Your task to perform on an android device: change your default location settings in chrome Image 0: 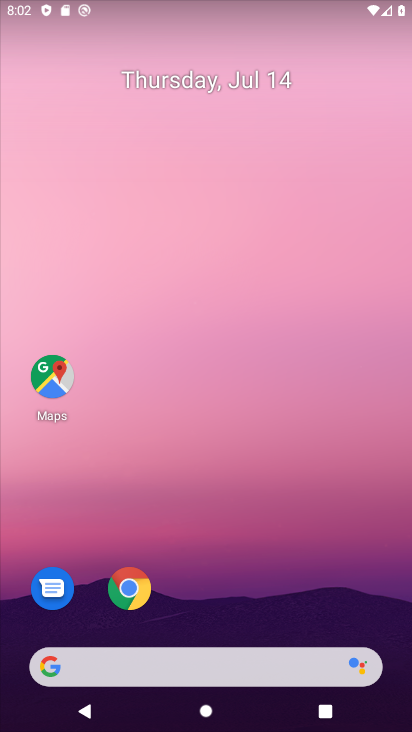
Step 0: click (130, 597)
Your task to perform on an android device: change your default location settings in chrome Image 1: 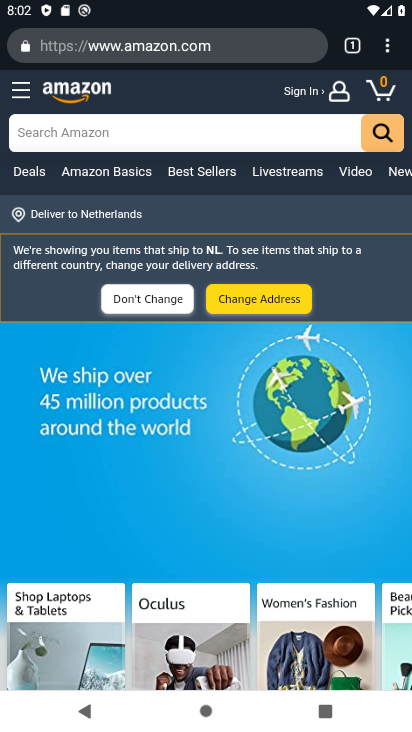
Step 1: click (390, 45)
Your task to perform on an android device: change your default location settings in chrome Image 2: 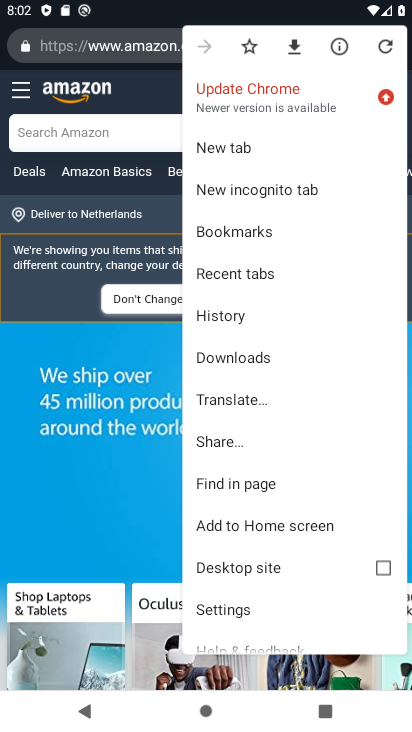
Step 2: click (229, 614)
Your task to perform on an android device: change your default location settings in chrome Image 3: 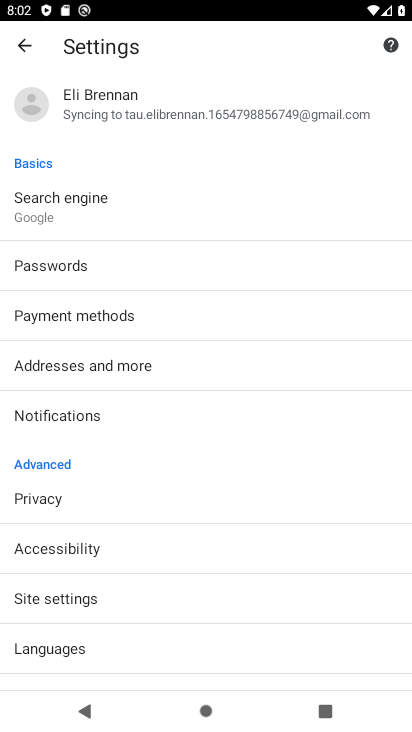
Step 3: click (71, 206)
Your task to perform on an android device: change your default location settings in chrome Image 4: 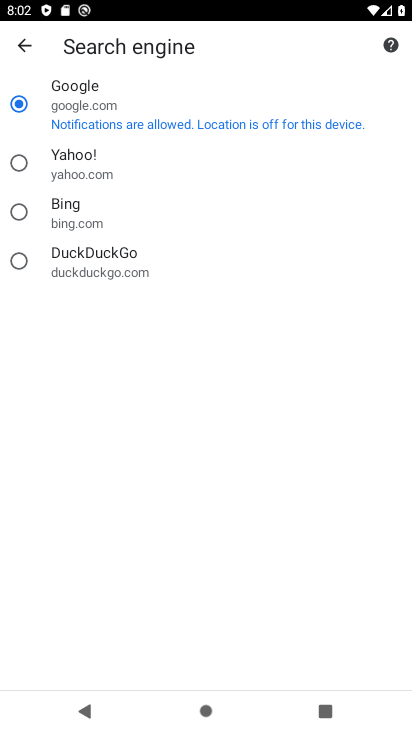
Step 4: click (19, 38)
Your task to perform on an android device: change your default location settings in chrome Image 5: 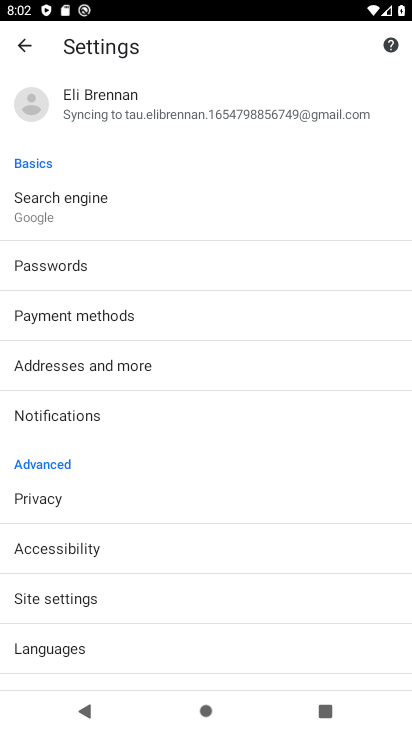
Step 5: drag from (105, 583) to (113, 390)
Your task to perform on an android device: change your default location settings in chrome Image 6: 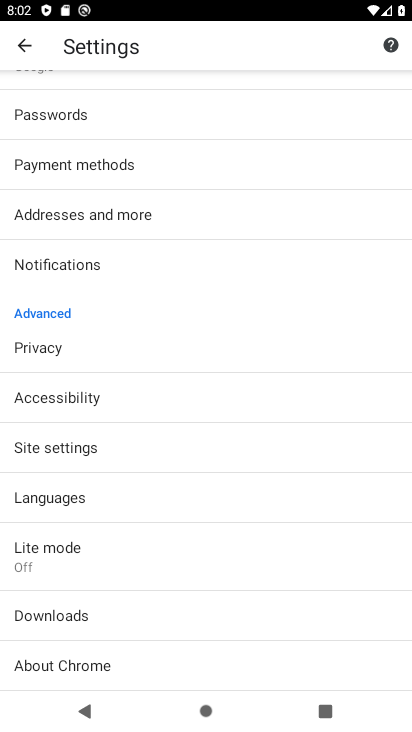
Step 6: click (79, 442)
Your task to perform on an android device: change your default location settings in chrome Image 7: 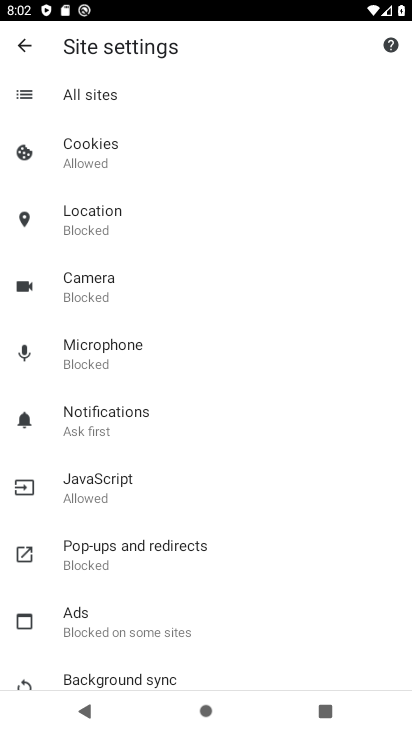
Step 7: click (105, 231)
Your task to perform on an android device: change your default location settings in chrome Image 8: 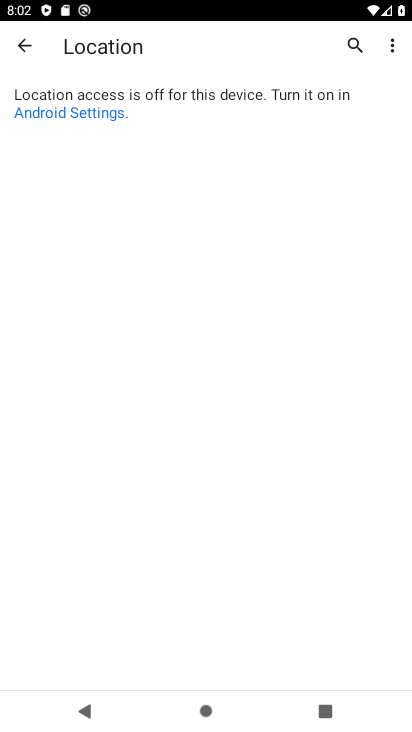
Step 8: click (83, 114)
Your task to perform on an android device: change your default location settings in chrome Image 9: 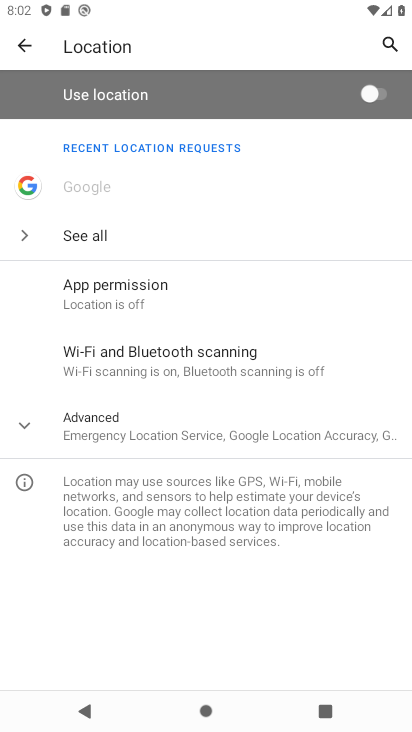
Step 9: click (389, 92)
Your task to perform on an android device: change your default location settings in chrome Image 10: 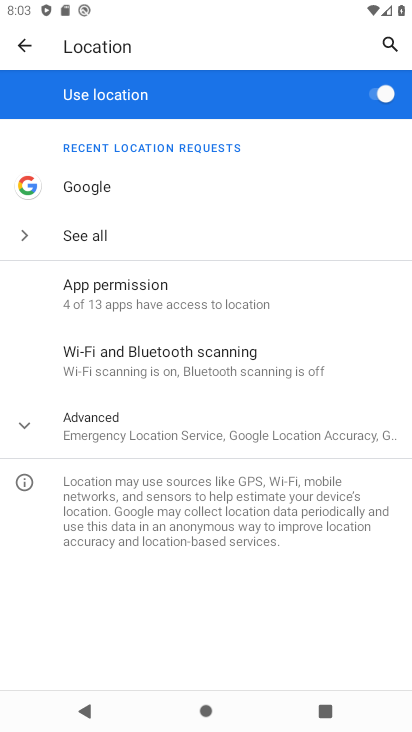
Step 10: task complete